Your task to perform on an android device: turn off wifi Image 0: 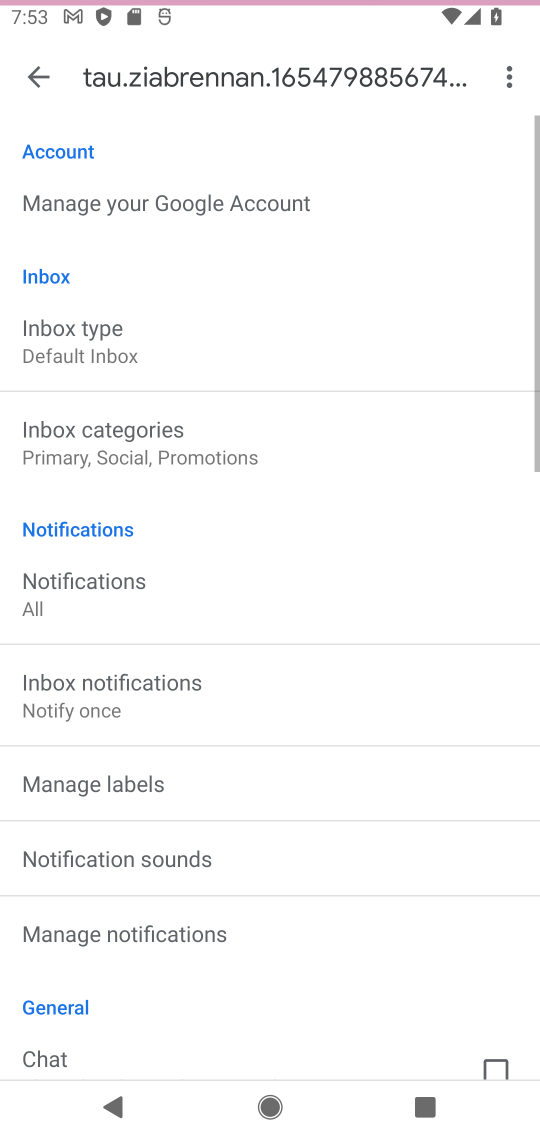
Step 0: press home button
Your task to perform on an android device: turn off wifi Image 1: 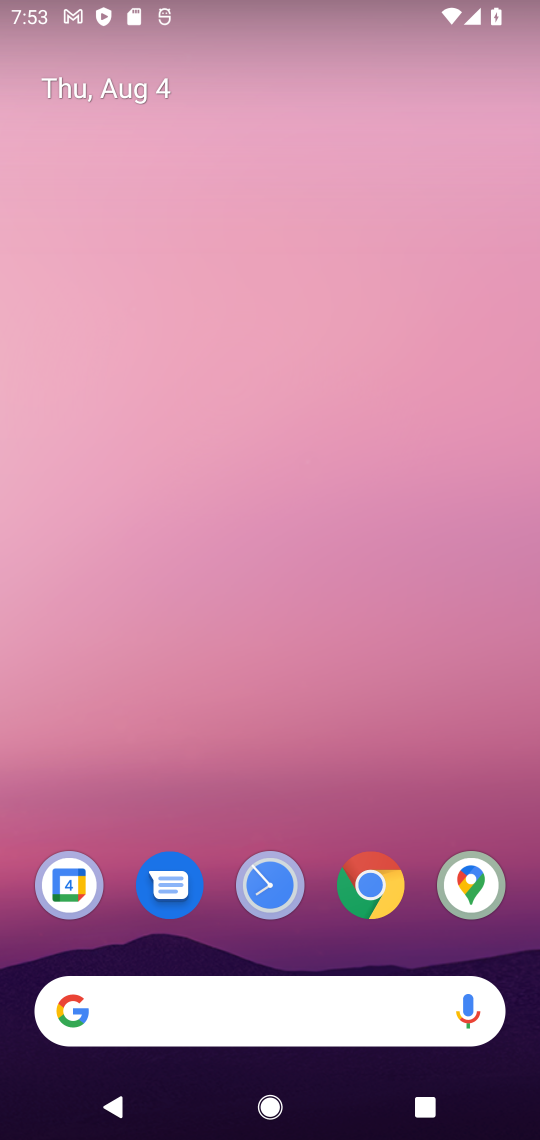
Step 1: drag from (465, 6) to (381, 1137)
Your task to perform on an android device: turn off wifi Image 2: 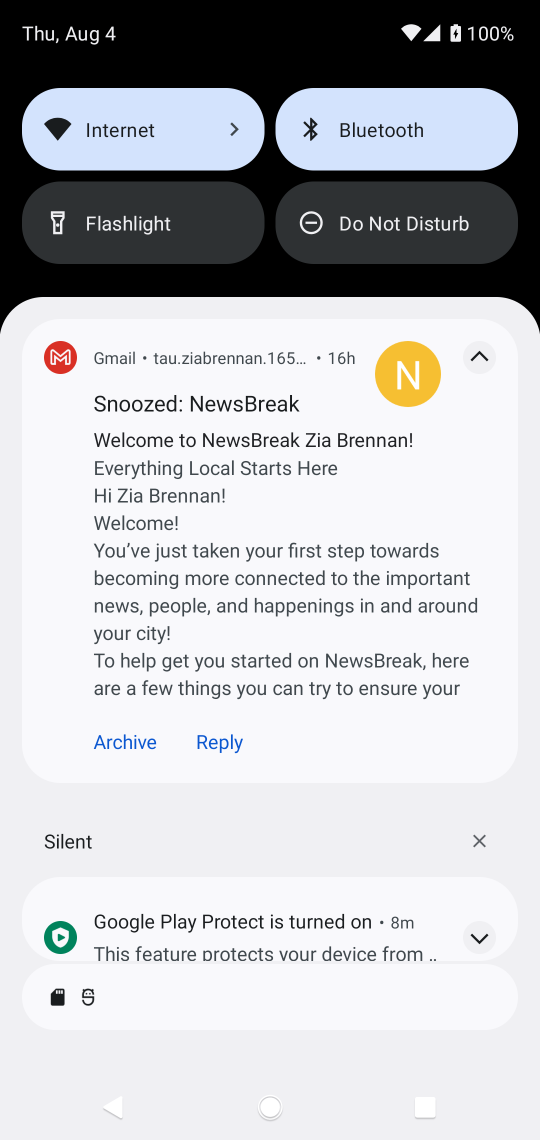
Step 2: click (233, 121)
Your task to perform on an android device: turn off wifi Image 3: 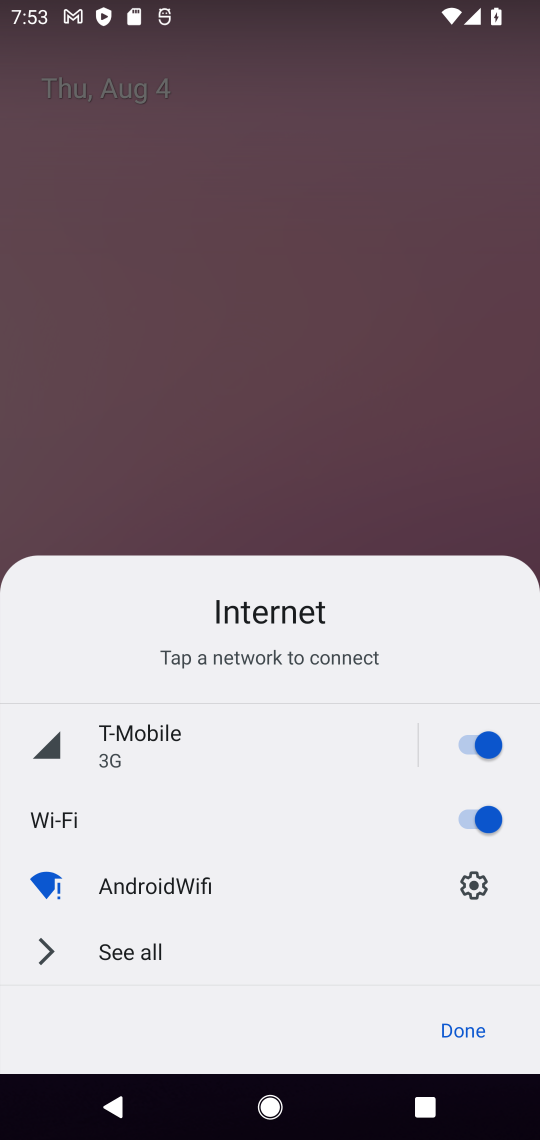
Step 3: click (429, 326)
Your task to perform on an android device: turn off wifi Image 4: 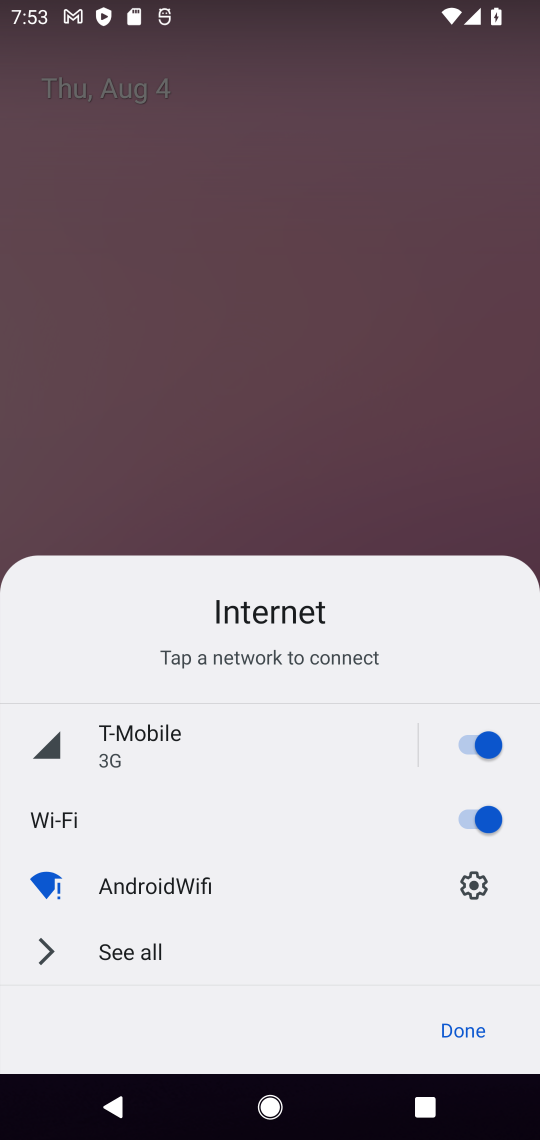
Step 4: drag from (464, 147) to (471, 922)
Your task to perform on an android device: turn off wifi Image 5: 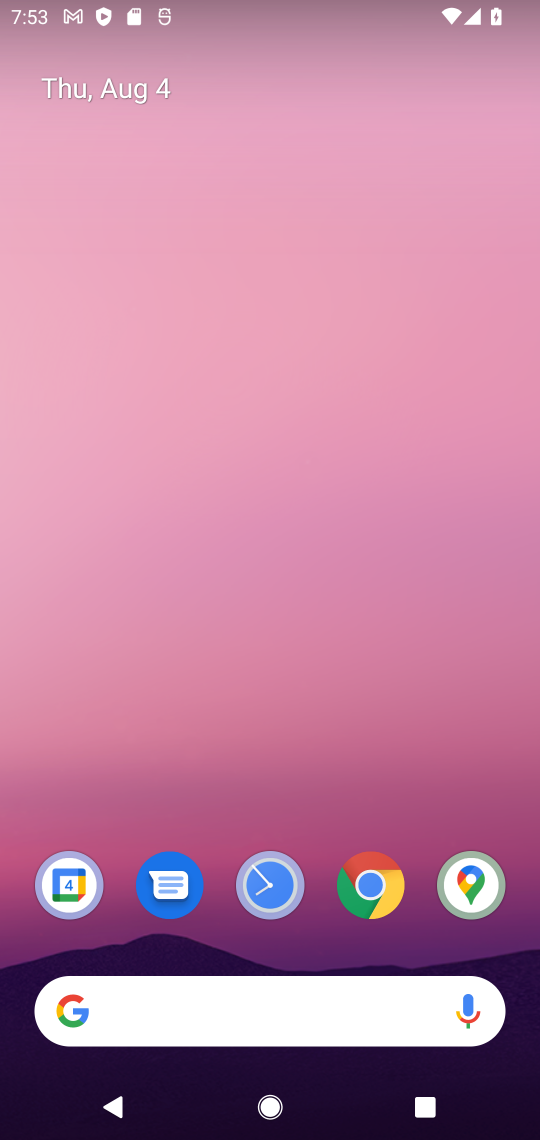
Step 5: drag from (451, 17) to (19, 1136)
Your task to perform on an android device: turn off wifi Image 6: 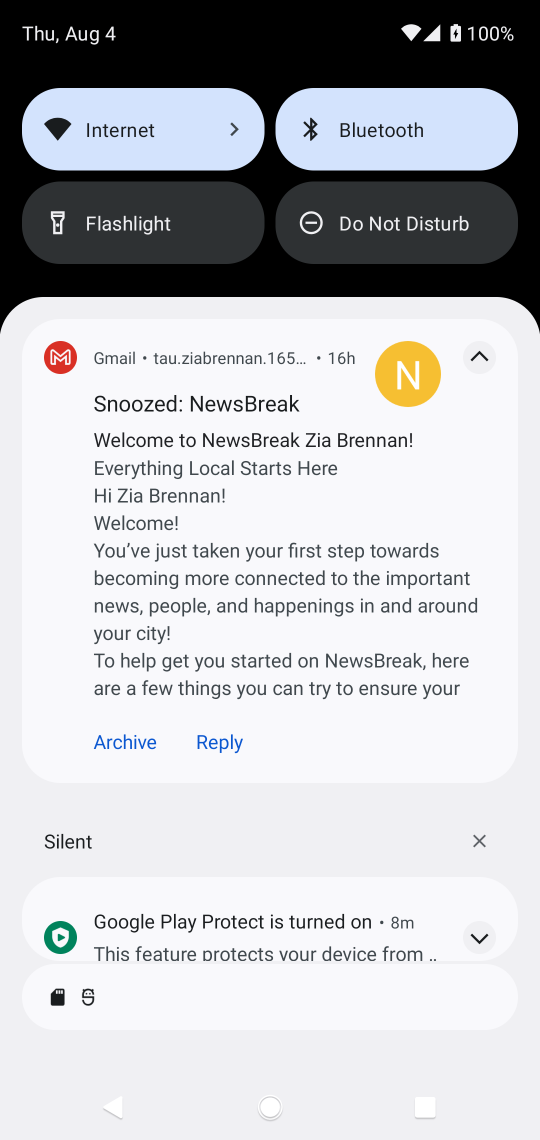
Step 6: click (104, 125)
Your task to perform on an android device: turn off wifi Image 7: 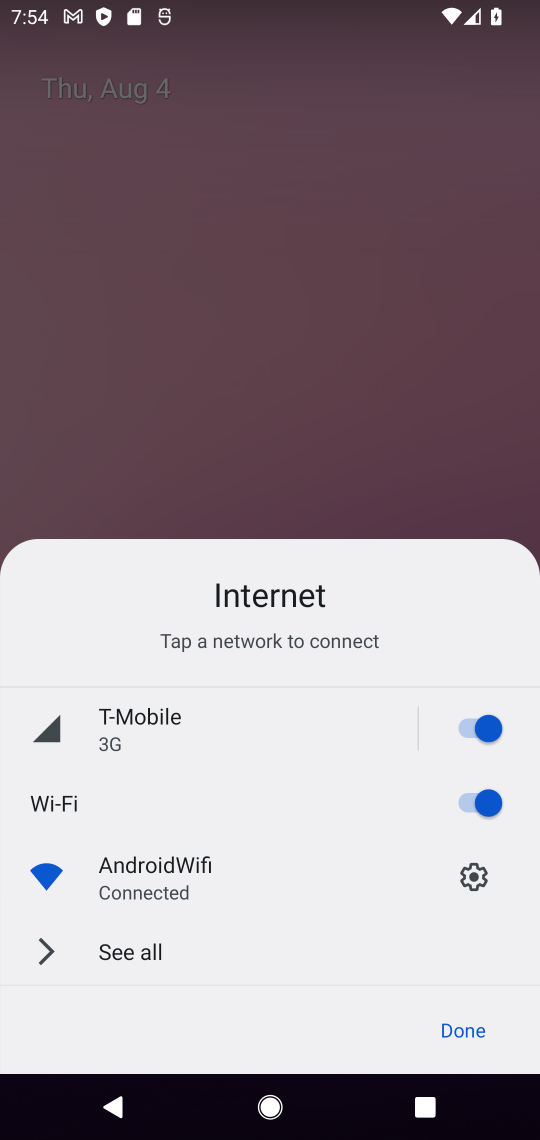
Step 7: click (475, 813)
Your task to perform on an android device: turn off wifi Image 8: 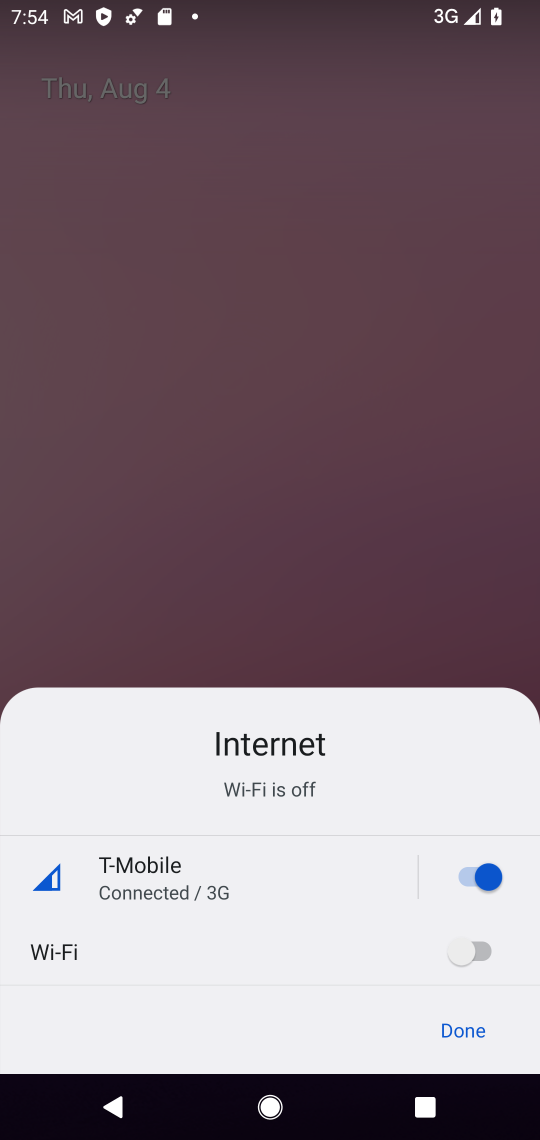
Step 8: task complete